Your task to perform on an android device: Add logitech g502 to the cart on target.com, then select checkout. Image 0: 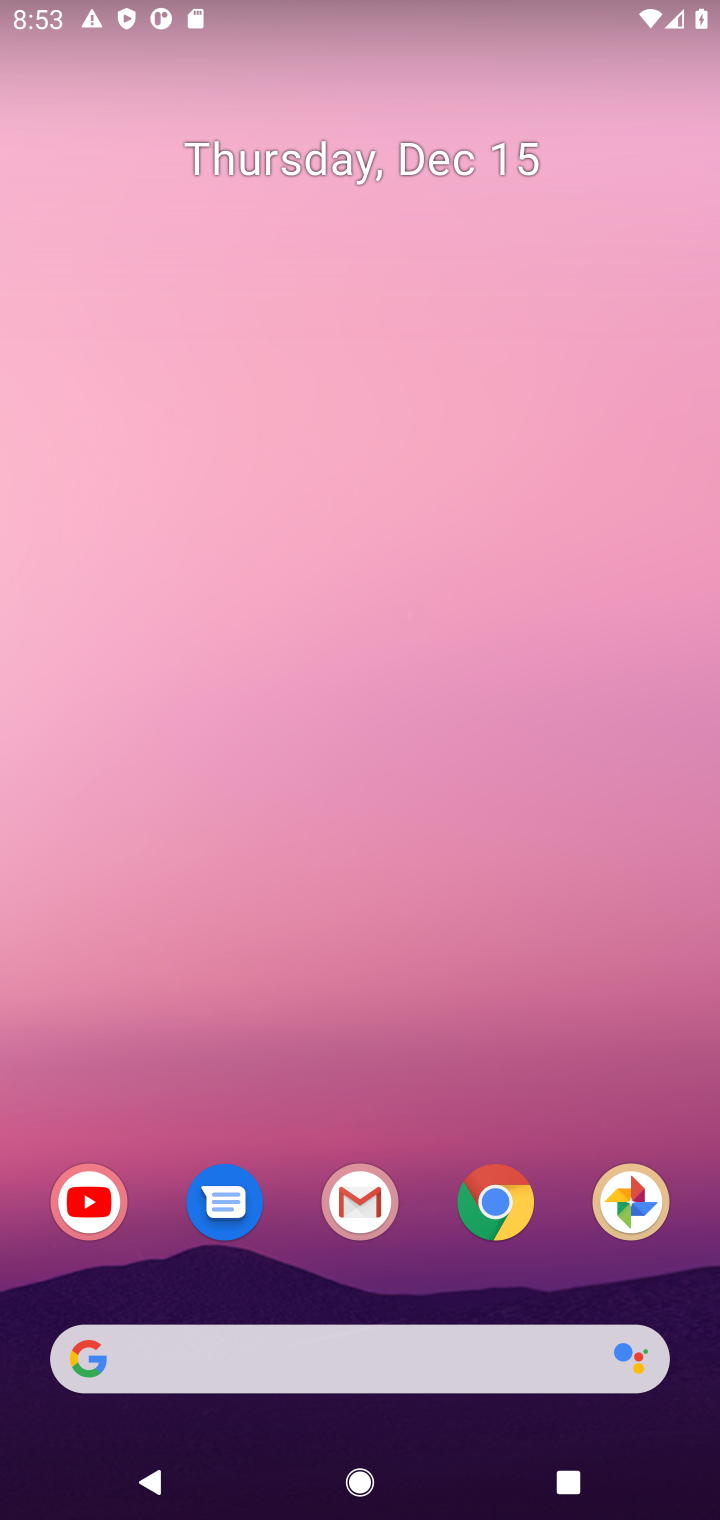
Step 0: click (491, 1203)
Your task to perform on an android device: Add logitech g502 to the cart on target.com, then select checkout. Image 1: 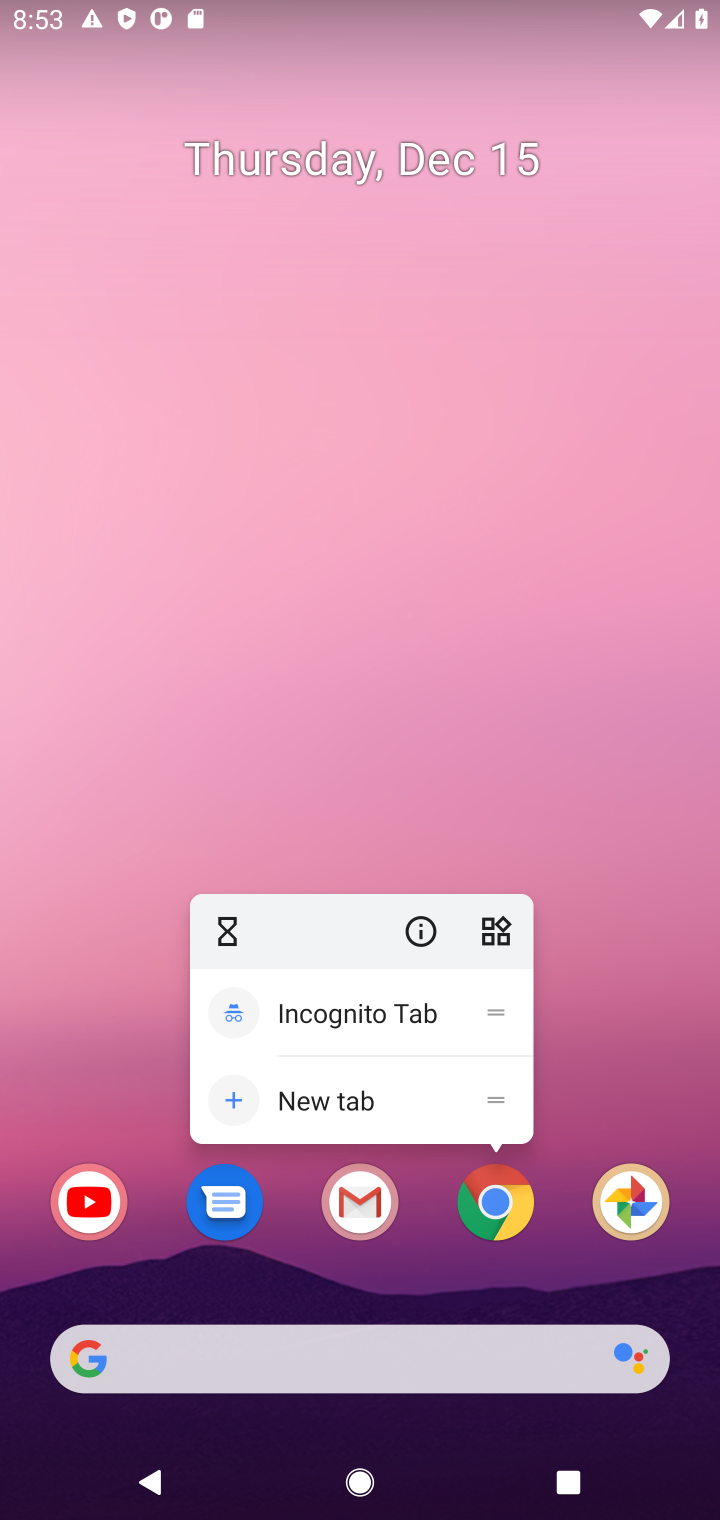
Step 1: click (496, 1204)
Your task to perform on an android device: Add logitech g502 to the cart on target.com, then select checkout. Image 2: 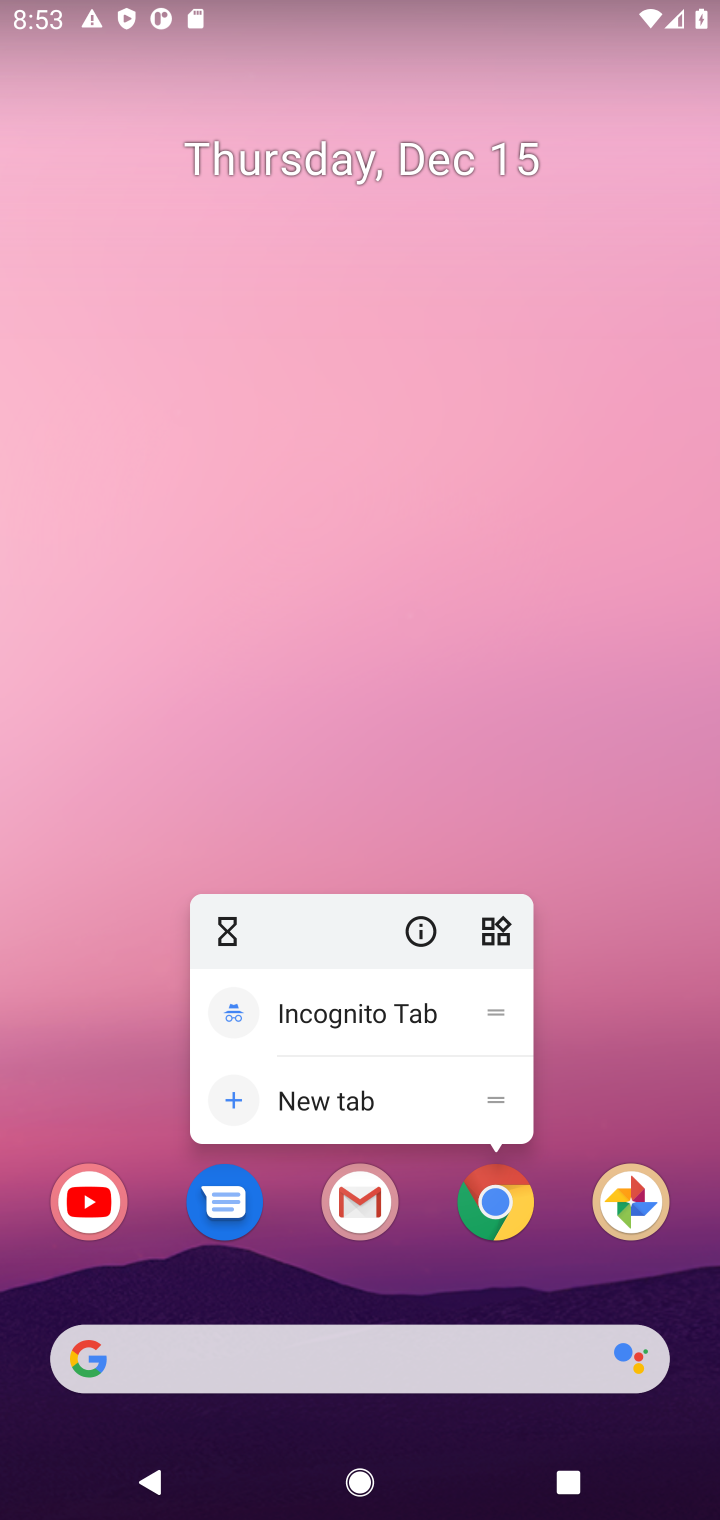
Step 2: click (500, 1193)
Your task to perform on an android device: Add logitech g502 to the cart on target.com, then select checkout. Image 3: 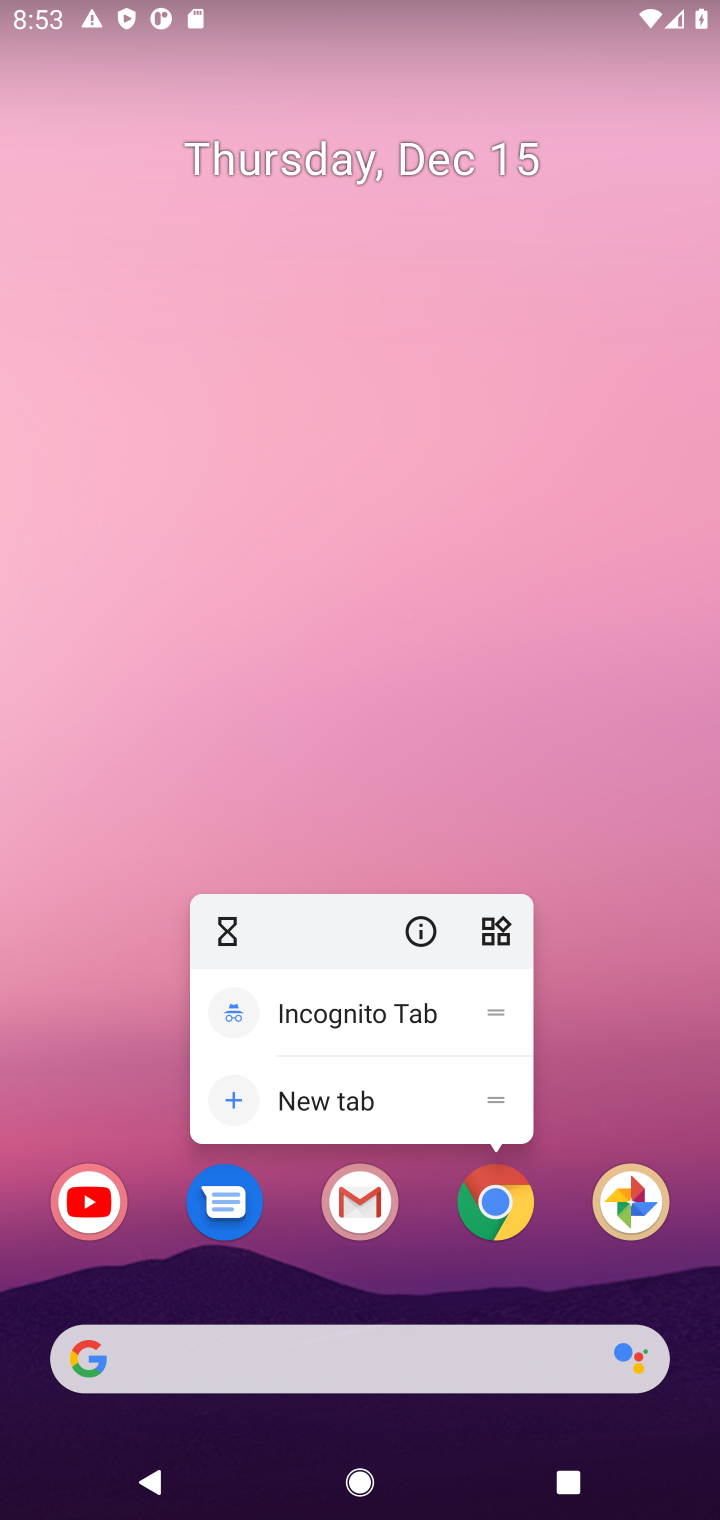
Step 3: click (506, 1216)
Your task to perform on an android device: Add logitech g502 to the cart on target.com, then select checkout. Image 4: 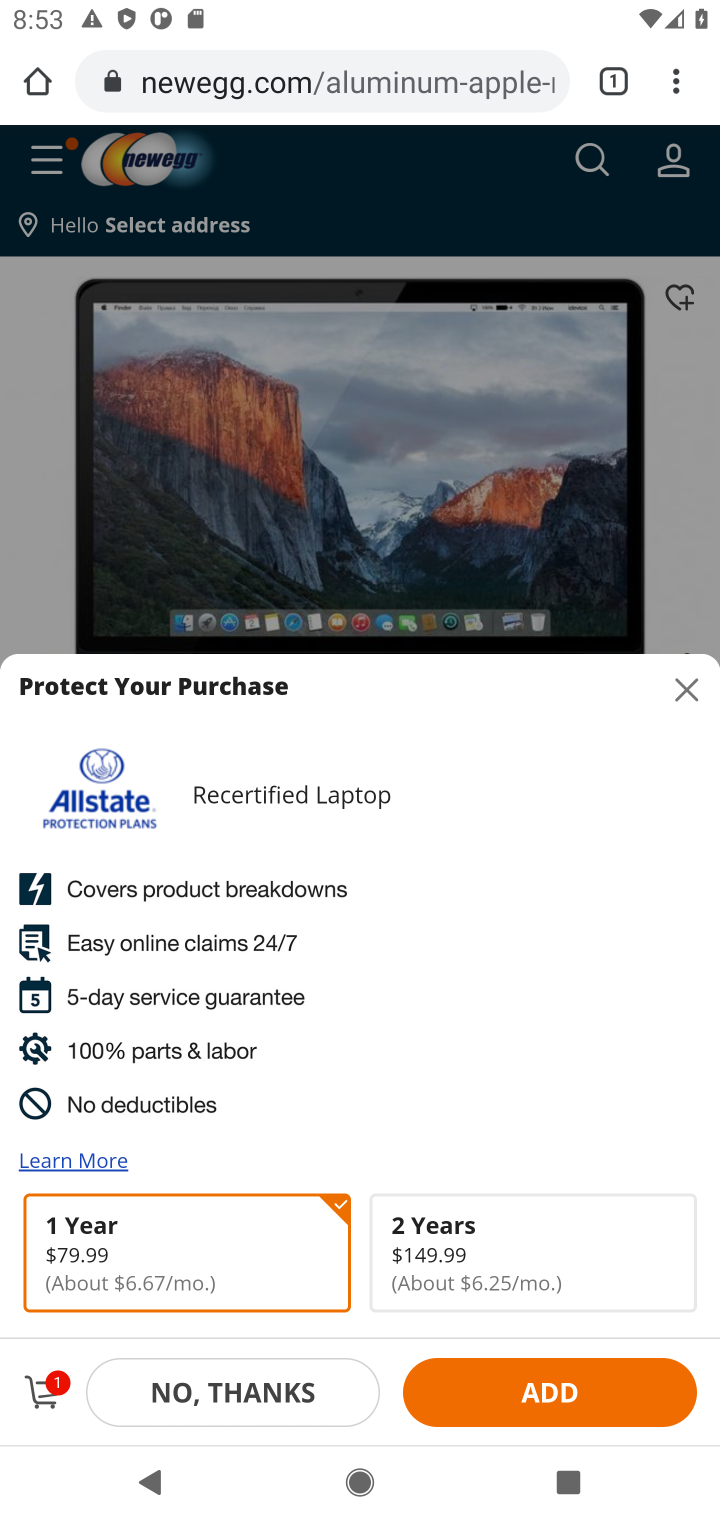
Step 4: click (327, 74)
Your task to perform on an android device: Add logitech g502 to the cart on target.com, then select checkout. Image 5: 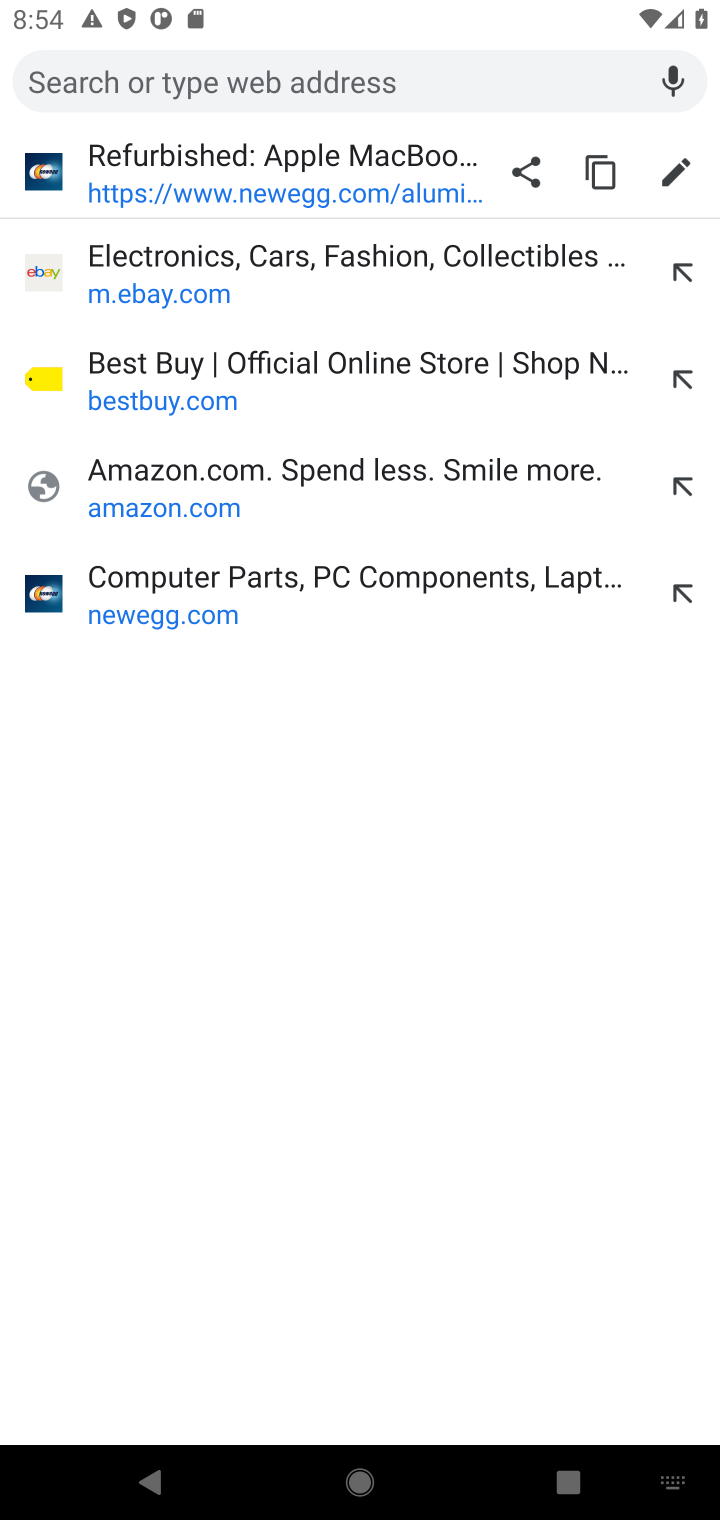
Step 5: type "target.com"
Your task to perform on an android device: Add logitech g502 to the cart on target.com, then select checkout. Image 6: 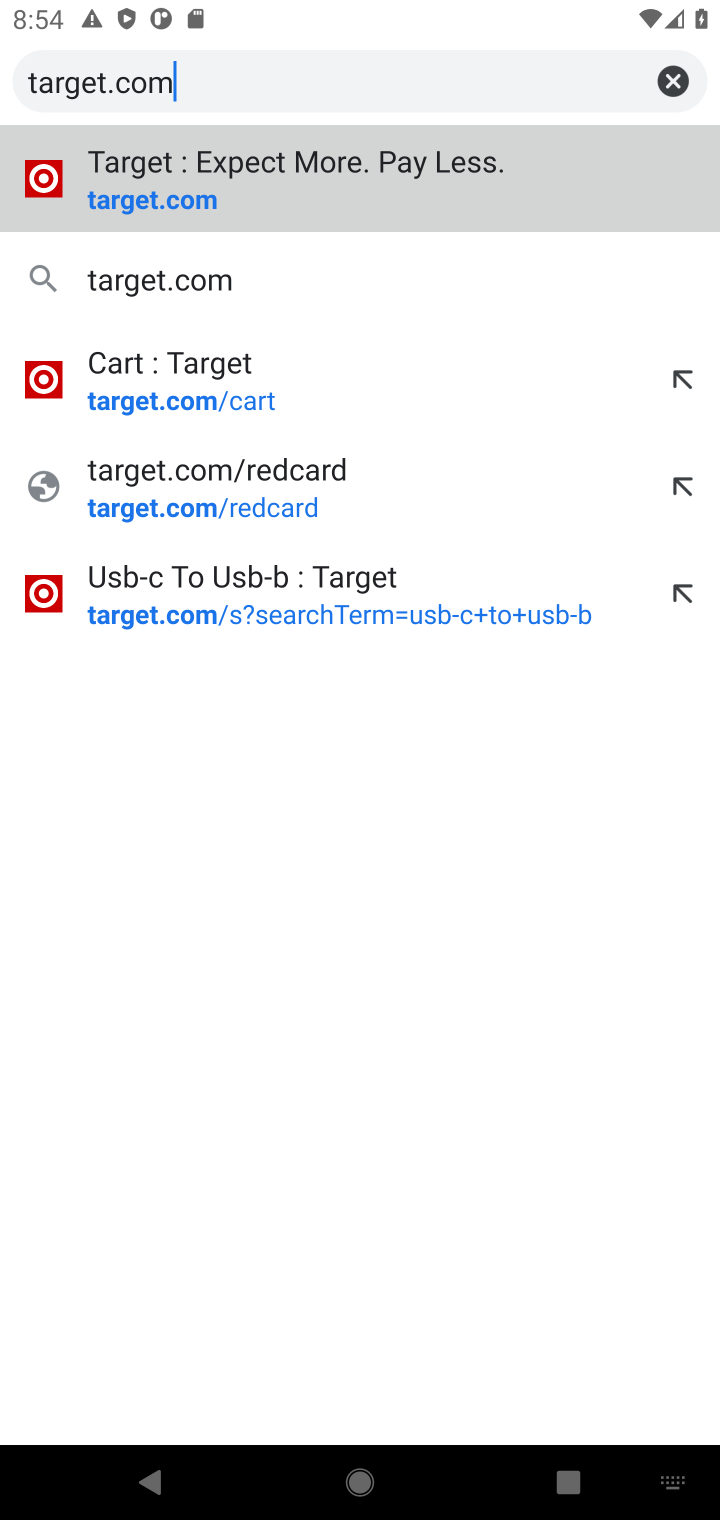
Step 6: click (93, 208)
Your task to perform on an android device: Add logitech g502 to the cart on target.com, then select checkout. Image 7: 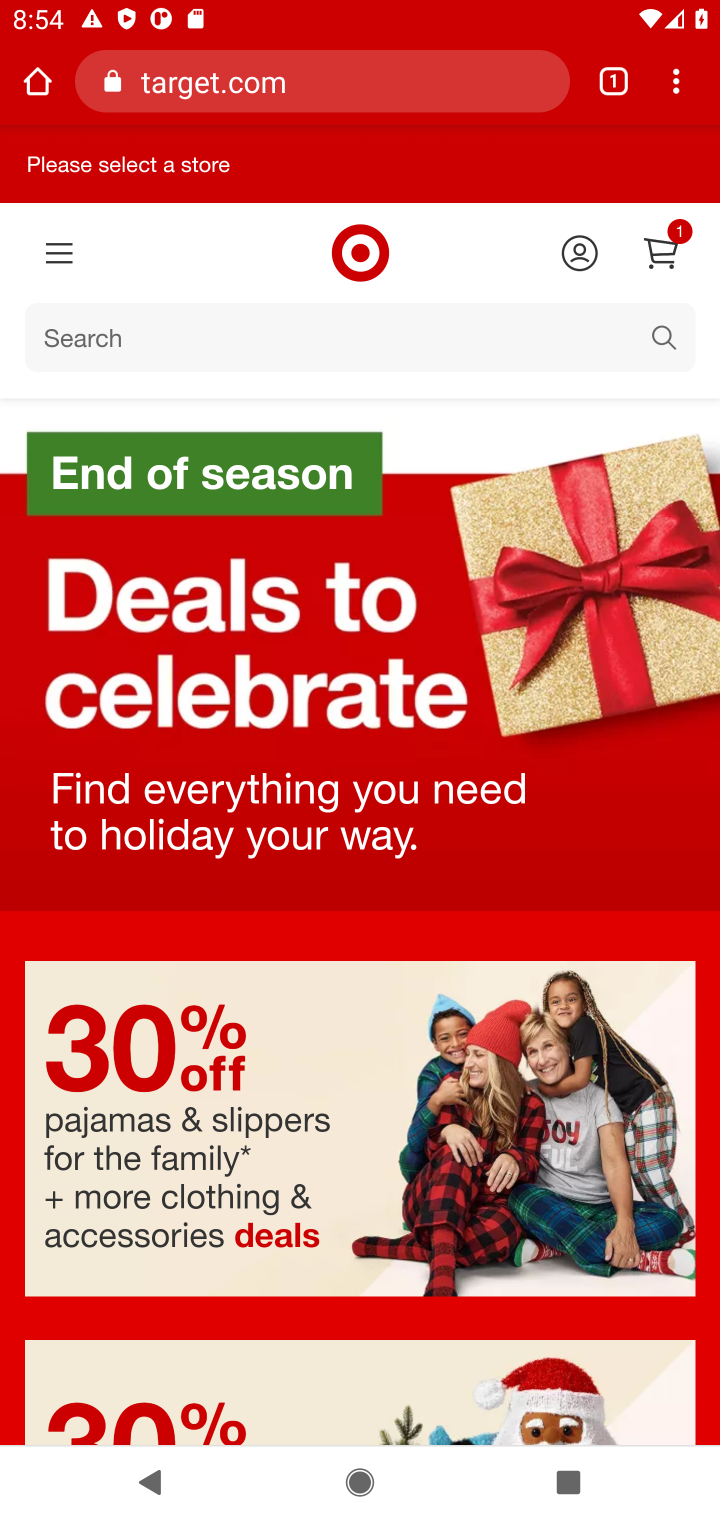
Step 7: click (46, 340)
Your task to perform on an android device: Add logitech g502 to the cart on target.com, then select checkout. Image 8: 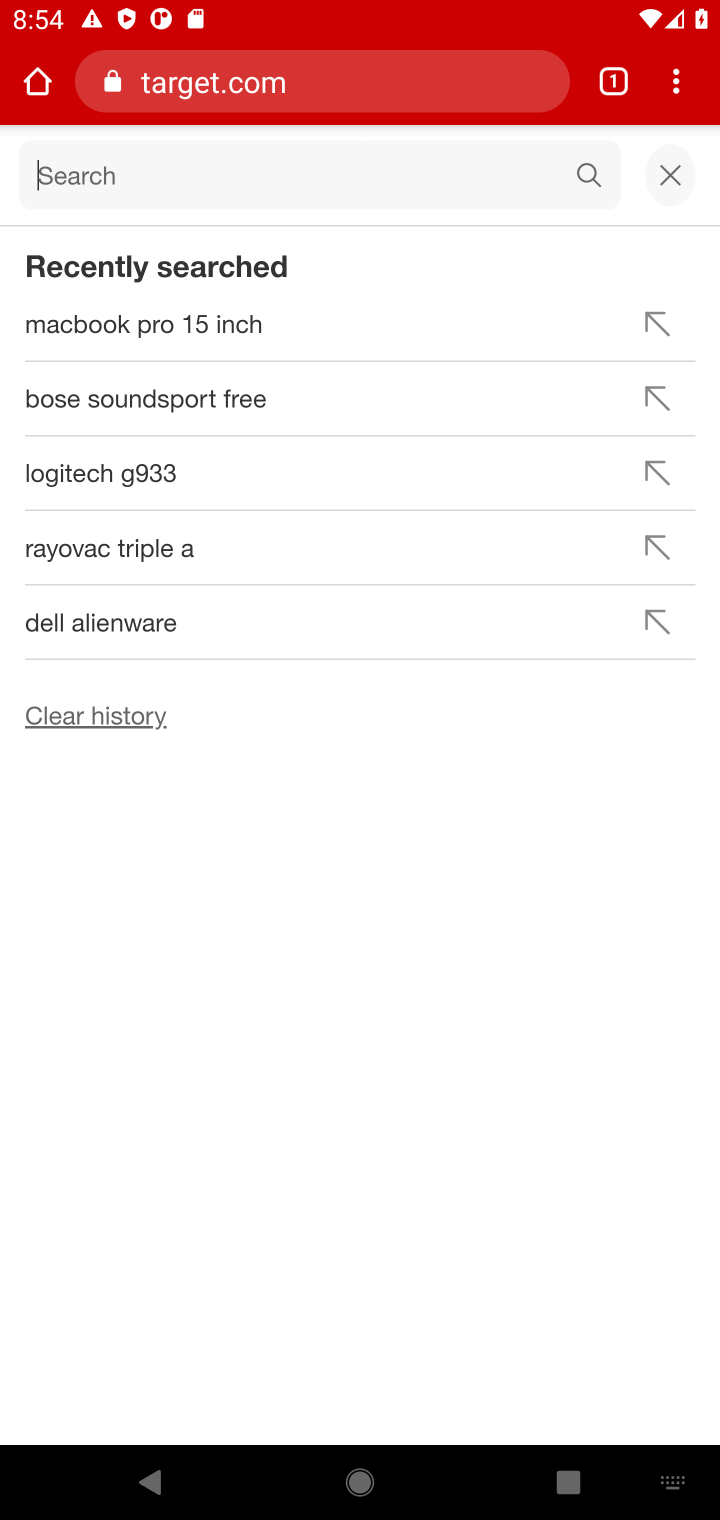
Step 8: type "logitech g502"
Your task to perform on an android device: Add logitech g502 to the cart on target.com, then select checkout. Image 9: 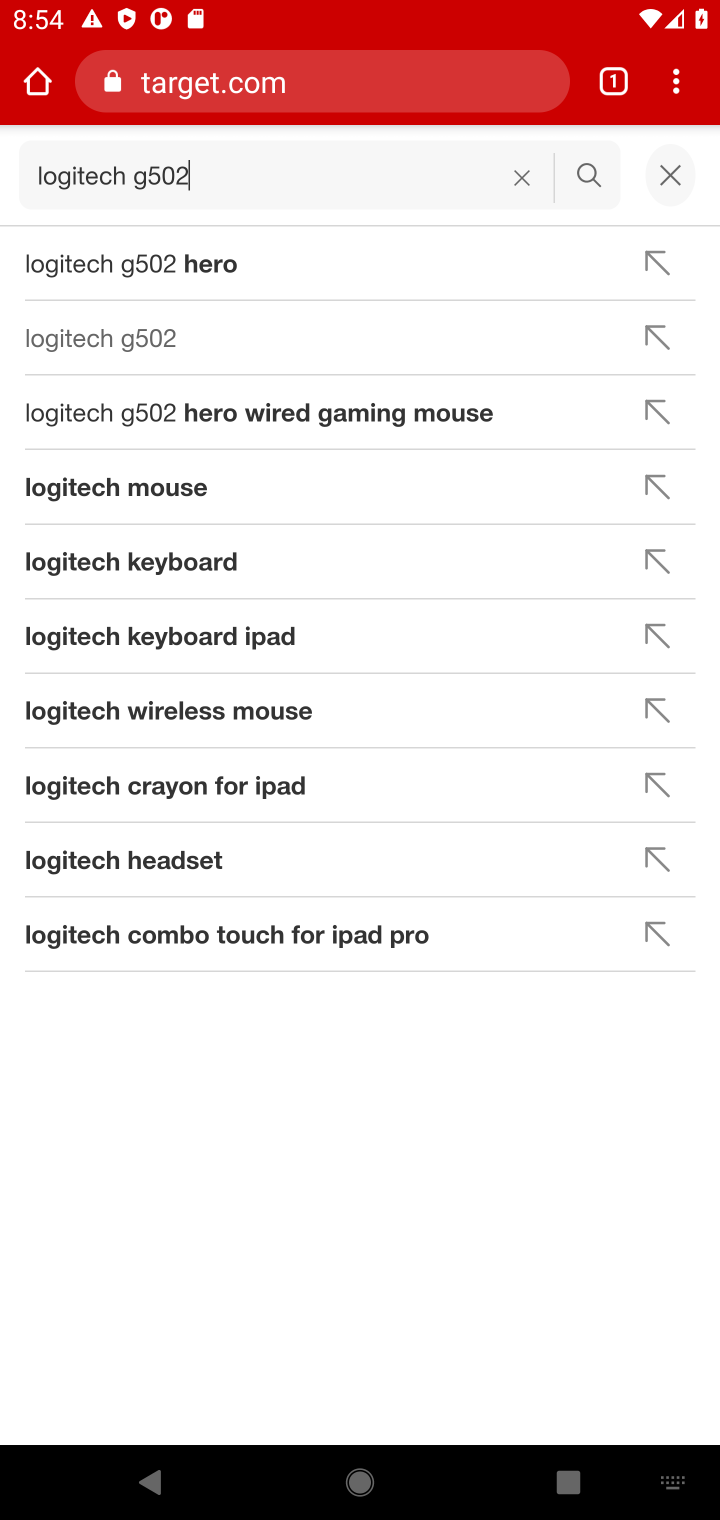
Step 9: click (61, 348)
Your task to perform on an android device: Add logitech g502 to the cart on target.com, then select checkout. Image 10: 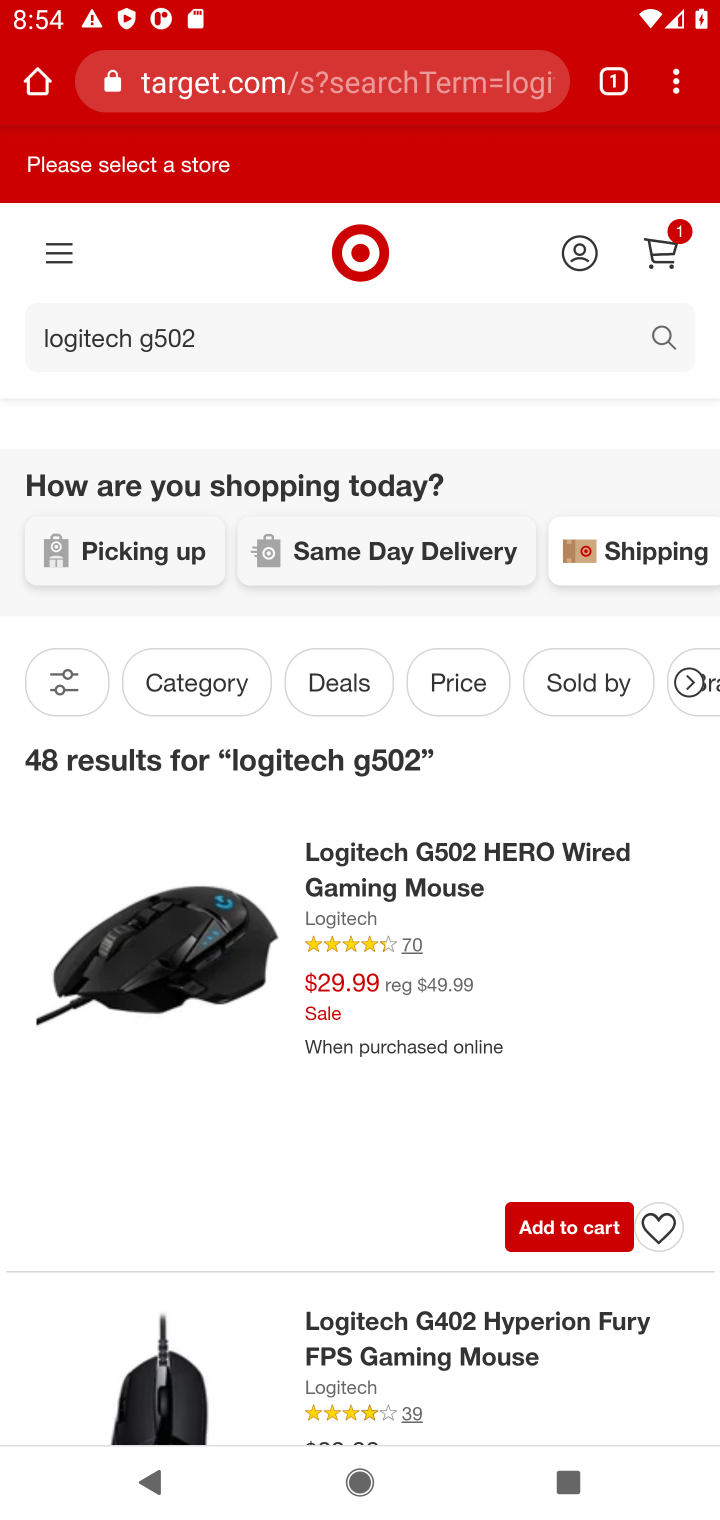
Step 10: click (564, 1215)
Your task to perform on an android device: Add logitech g502 to the cart on target.com, then select checkout. Image 11: 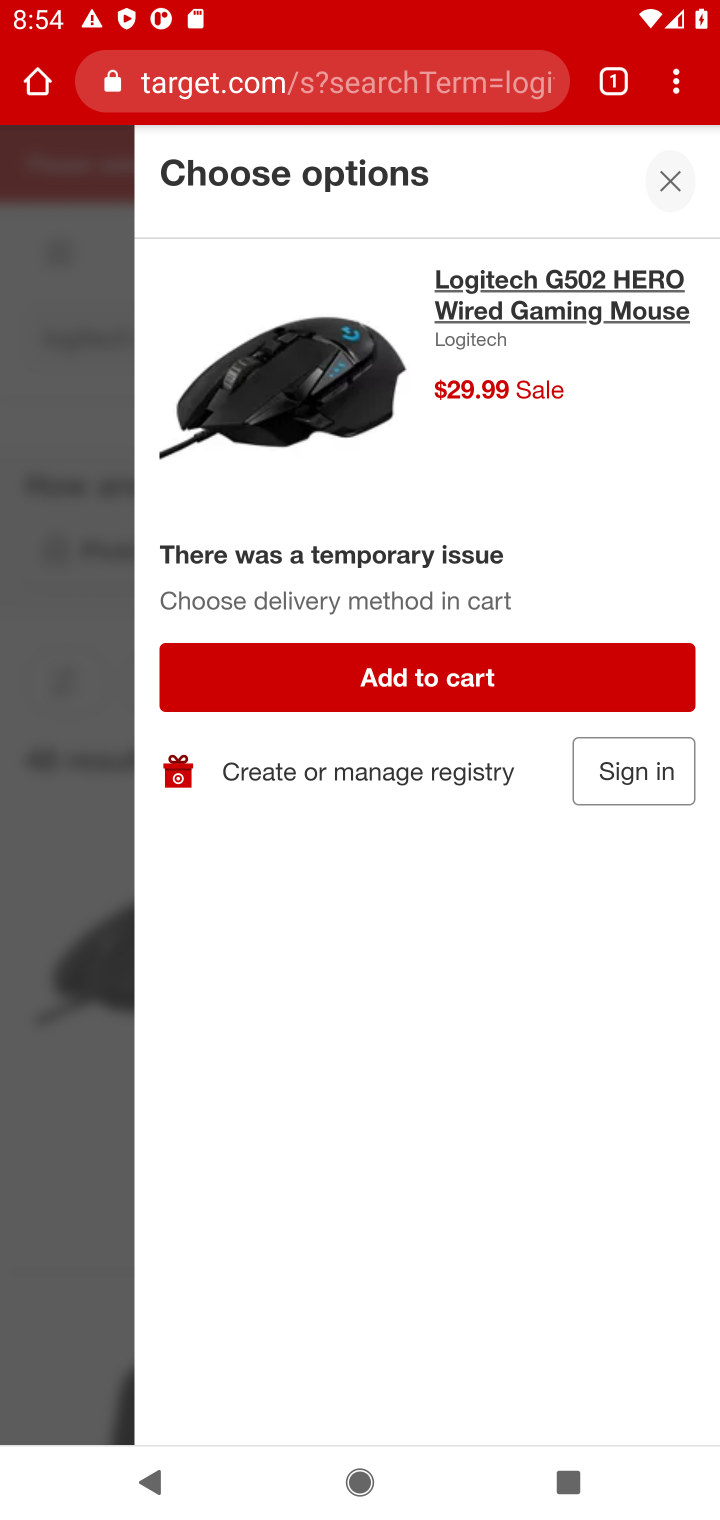
Step 11: click (364, 695)
Your task to perform on an android device: Add logitech g502 to the cart on target.com, then select checkout. Image 12: 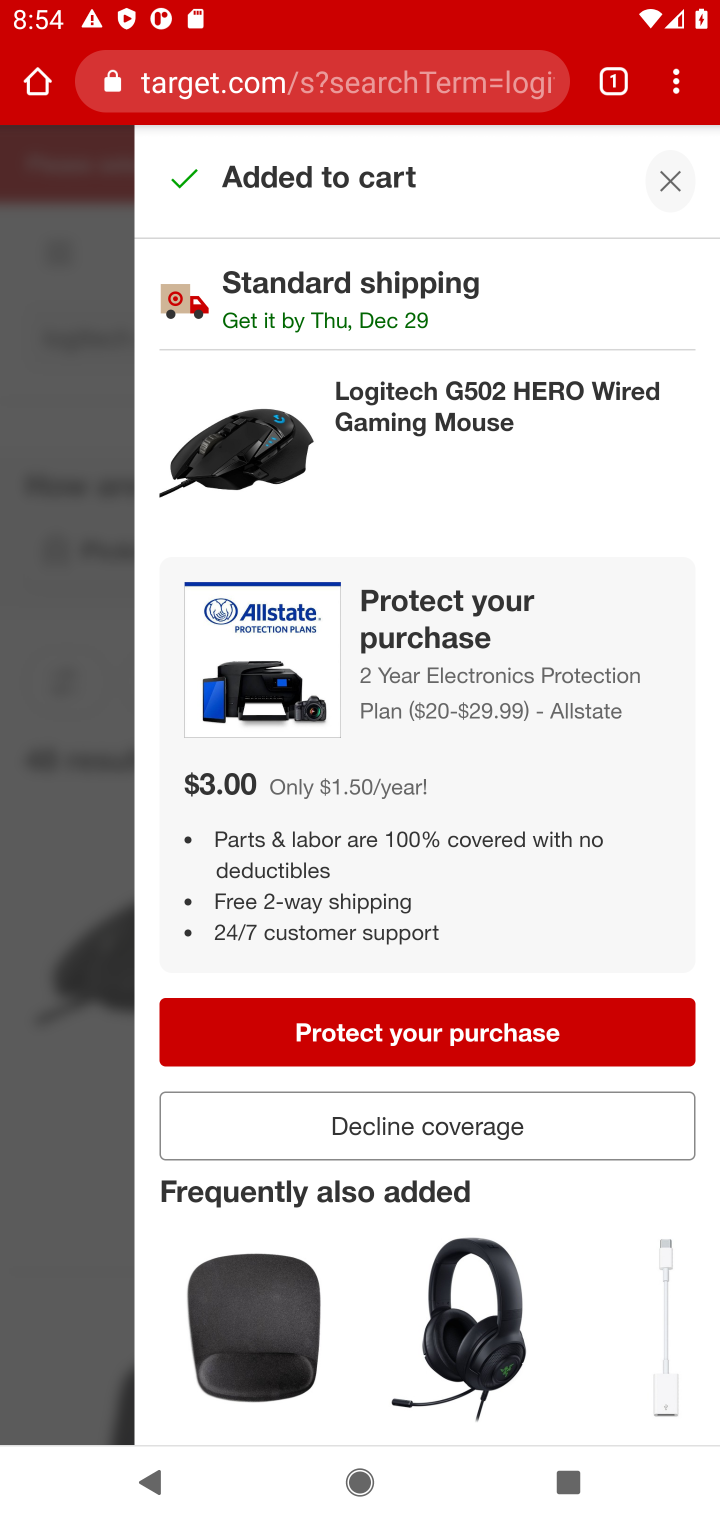
Step 12: click (669, 186)
Your task to perform on an android device: Add logitech g502 to the cart on target.com, then select checkout. Image 13: 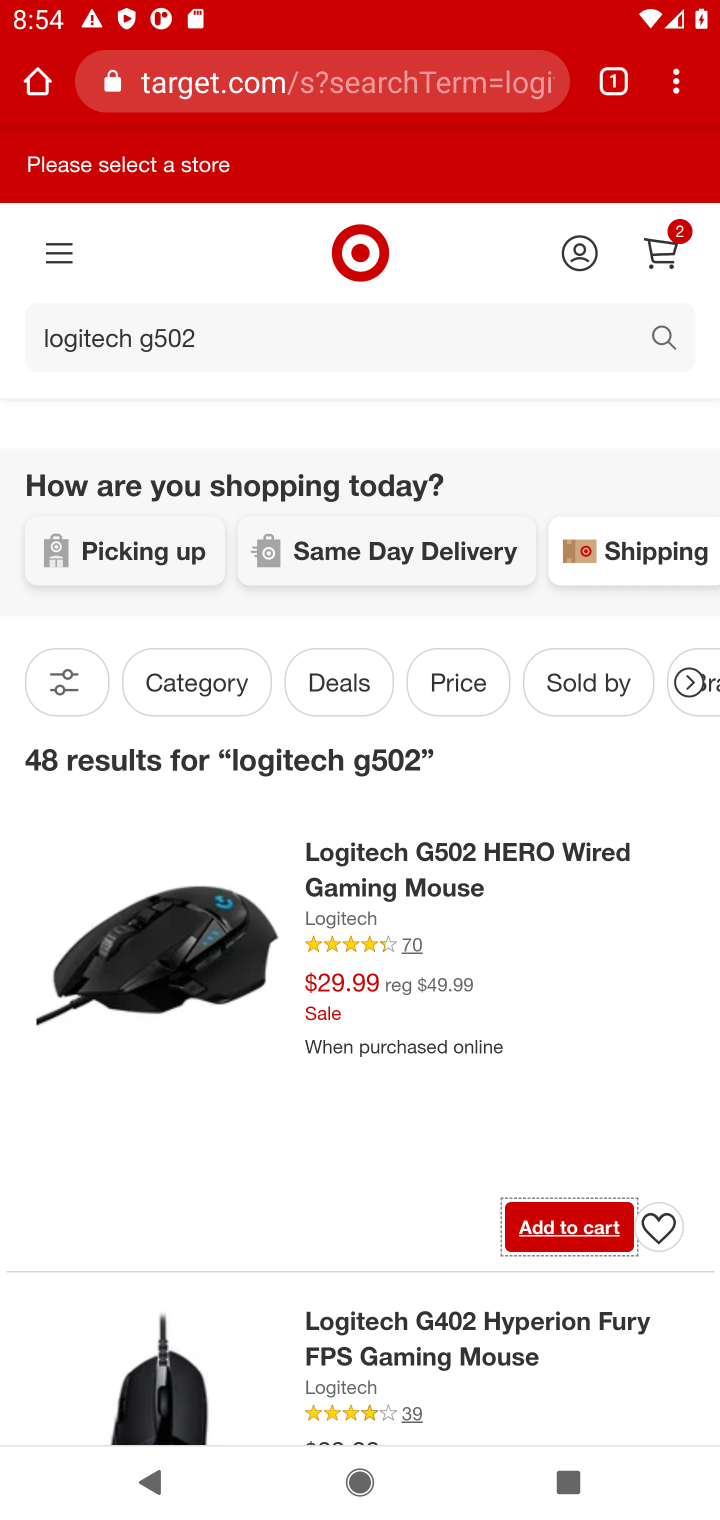
Step 13: click (652, 246)
Your task to perform on an android device: Add logitech g502 to the cart on target.com, then select checkout. Image 14: 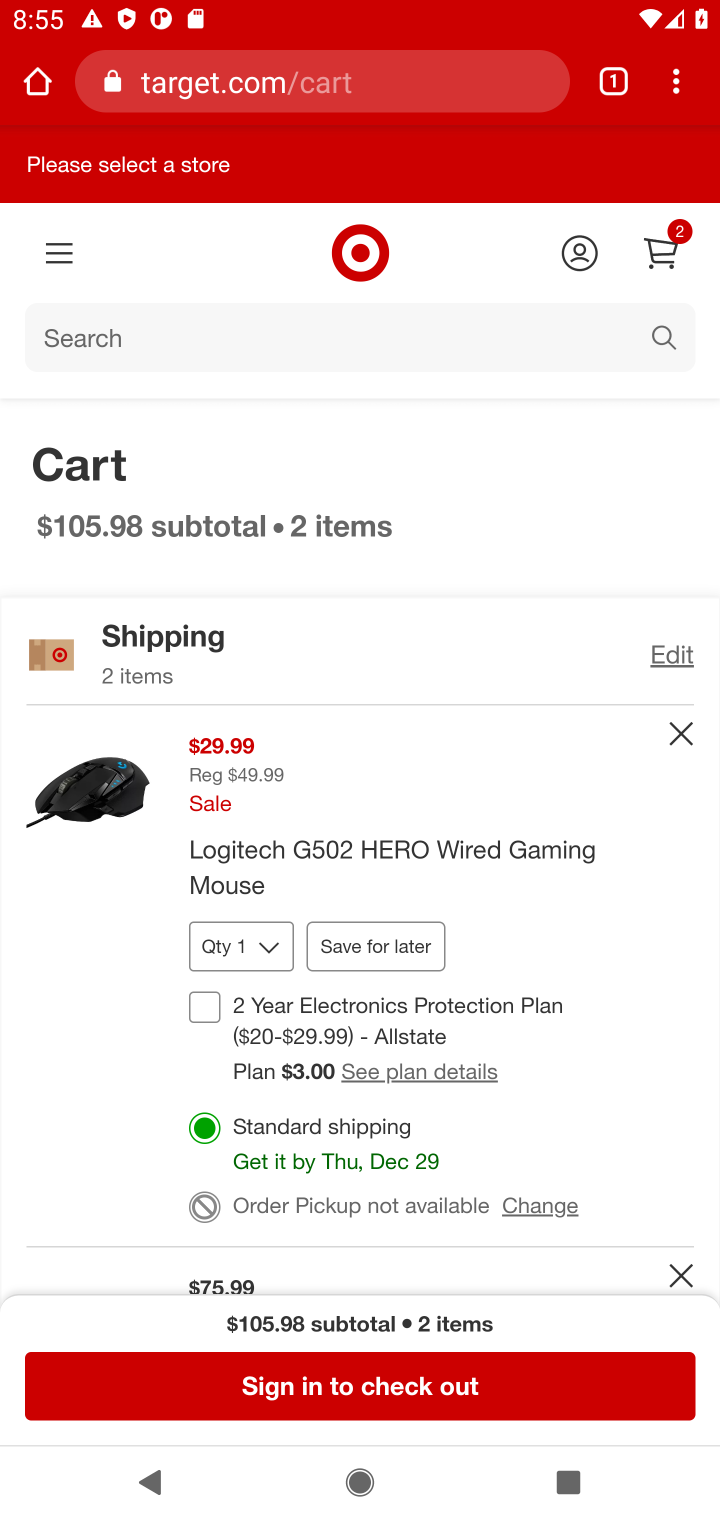
Step 14: click (304, 1385)
Your task to perform on an android device: Add logitech g502 to the cart on target.com, then select checkout. Image 15: 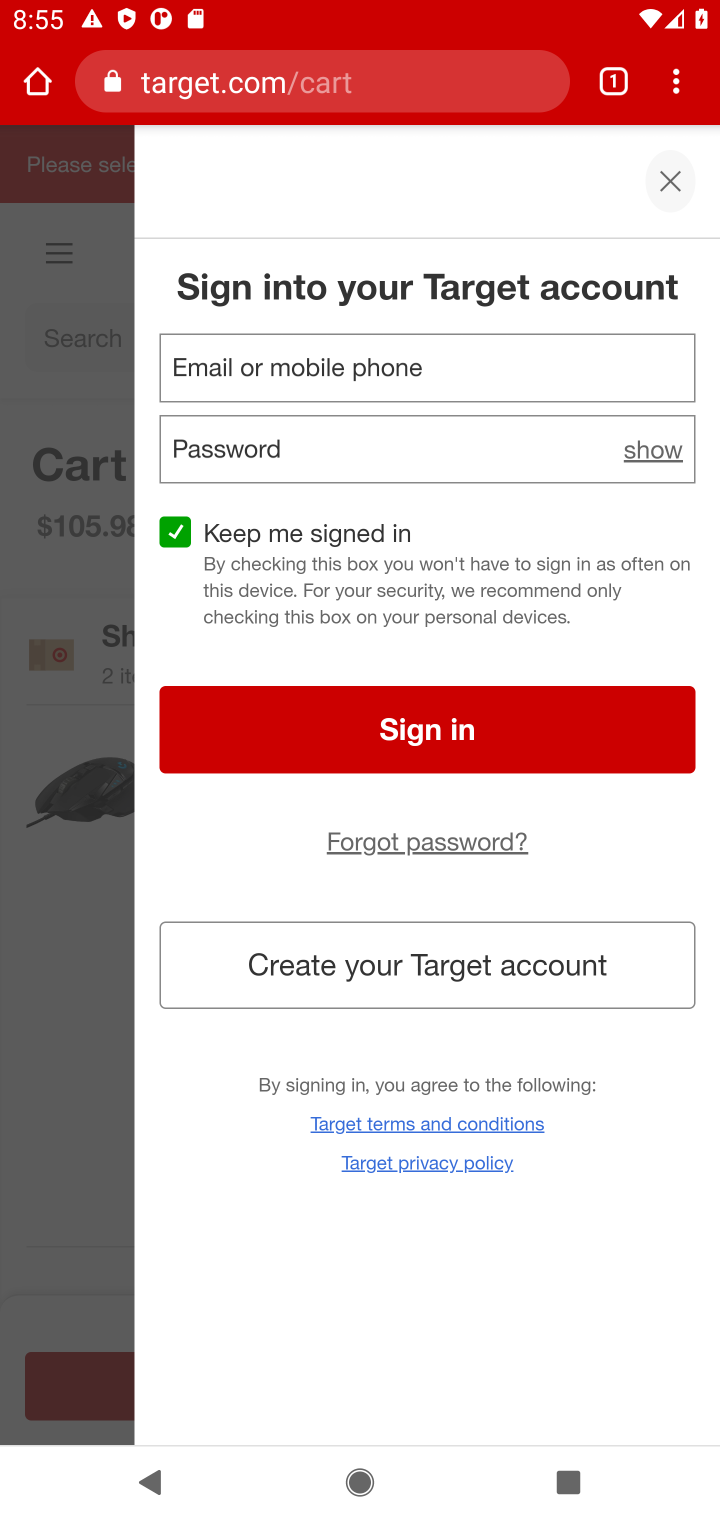
Step 15: task complete